Your task to perform on an android device: toggle wifi Image 0: 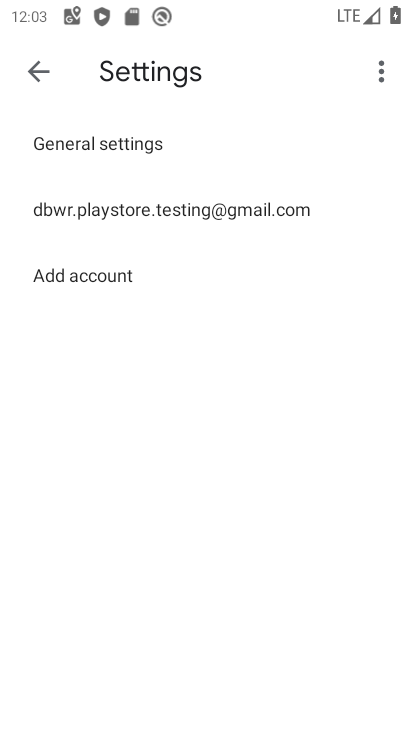
Step 0: press home button
Your task to perform on an android device: toggle wifi Image 1: 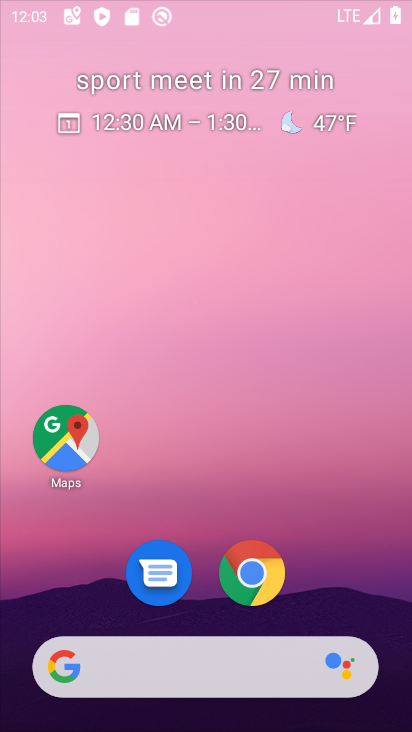
Step 1: drag from (174, 600) to (195, 245)
Your task to perform on an android device: toggle wifi Image 2: 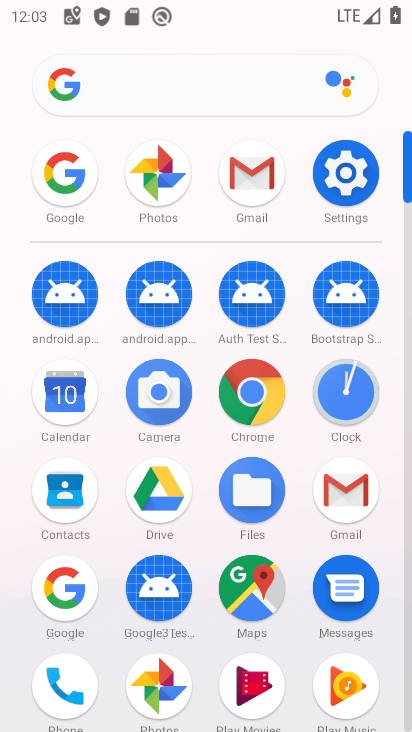
Step 2: click (352, 185)
Your task to perform on an android device: toggle wifi Image 3: 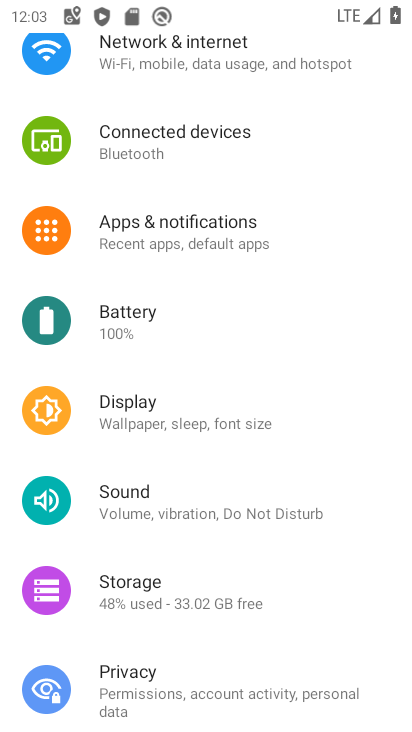
Step 3: drag from (311, 173) to (310, 551)
Your task to perform on an android device: toggle wifi Image 4: 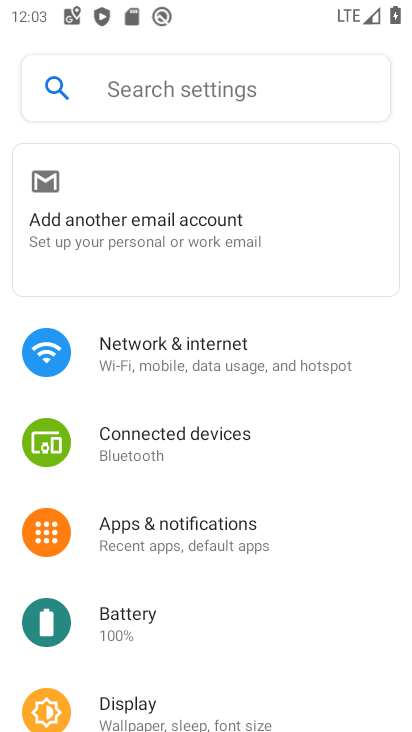
Step 4: click (235, 362)
Your task to perform on an android device: toggle wifi Image 5: 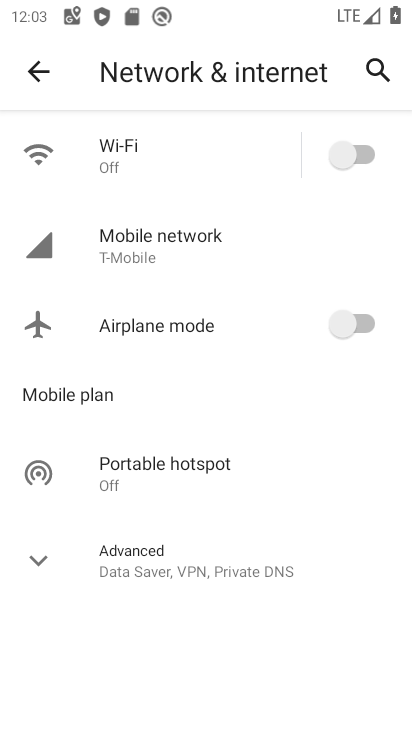
Step 5: click (352, 138)
Your task to perform on an android device: toggle wifi Image 6: 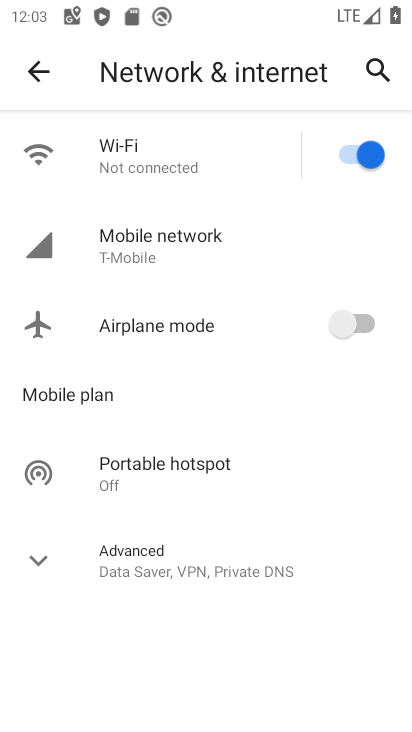
Step 6: task complete